Your task to perform on an android device: uninstall "Mercado Libre" Image 0: 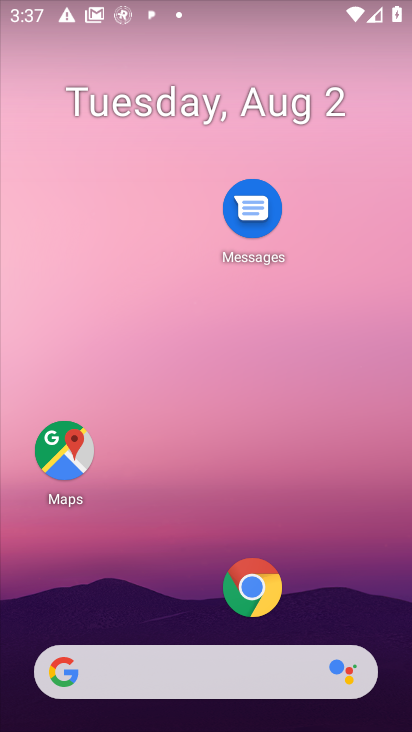
Step 0: drag from (207, 585) to (227, 205)
Your task to perform on an android device: uninstall "Mercado Libre" Image 1: 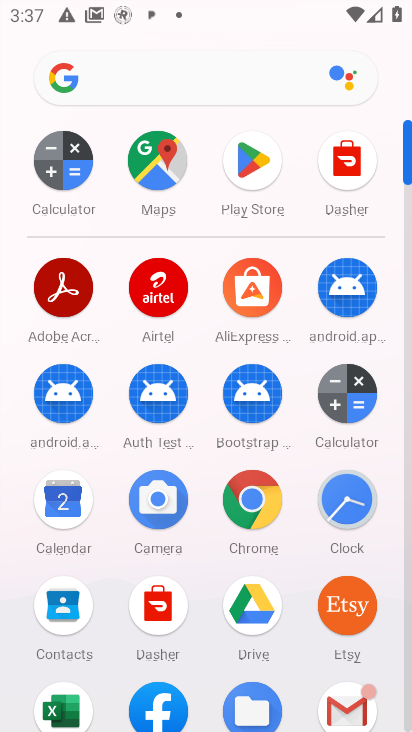
Step 1: click (237, 172)
Your task to perform on an android device: uninstall "Mercado Libre" Image 2: 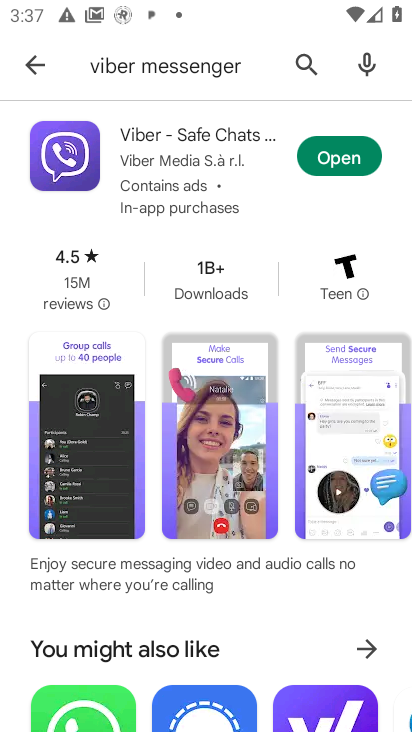
Step 2: click (295, 62)
Your task to perform on an android device: uninstall "Mercado Libre" Image 3: 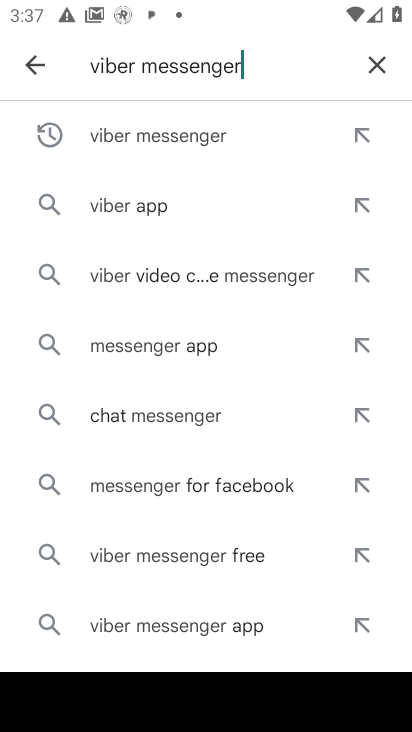
Step 3: click (363, 53)
Your task to perform on an android device: uninstall "Mercado Libre" Image 4: 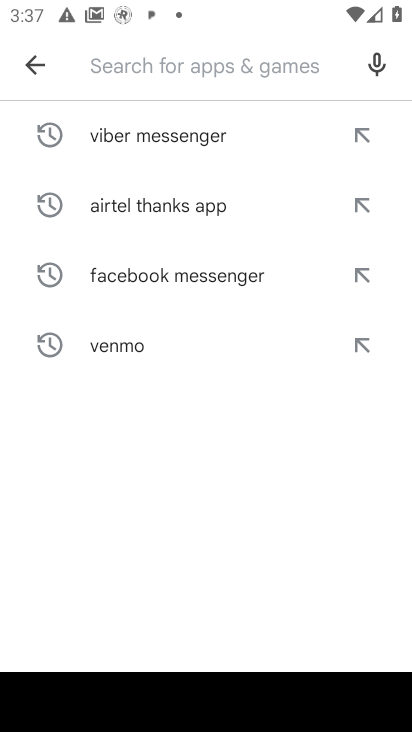
Step 4: type "Mercado Libre"
Your task to perform on an android device: uninstall "Mercado Libre" Image 5: 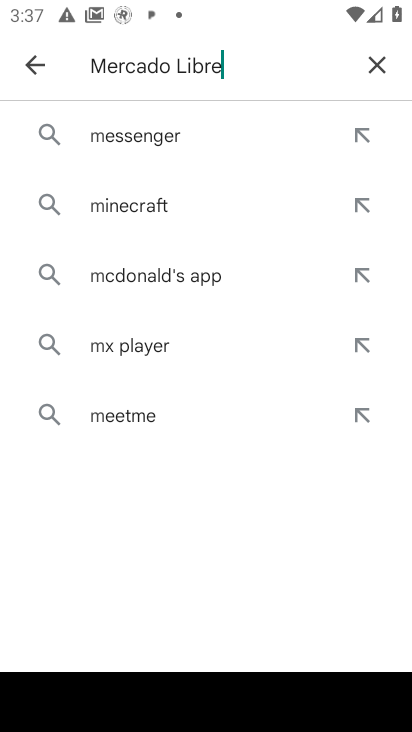
Step 5: type ""
Your task to perform on an android device: uninstall "Mercado Libre" Image 6: 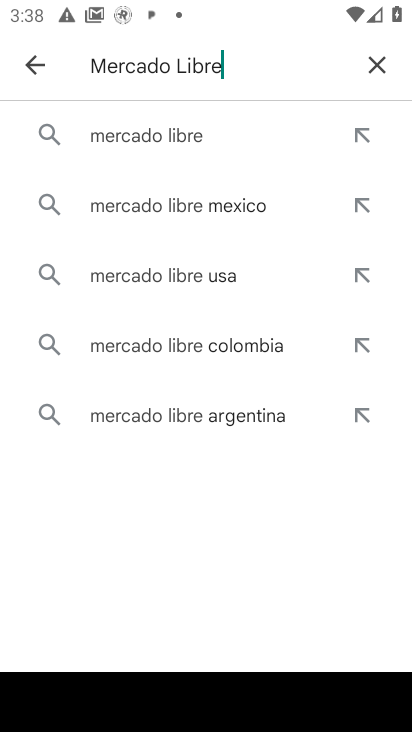
Step 6: click (238, 131)
Your task to perform on an android device: uninstall "Mercado Libre" Image 7: 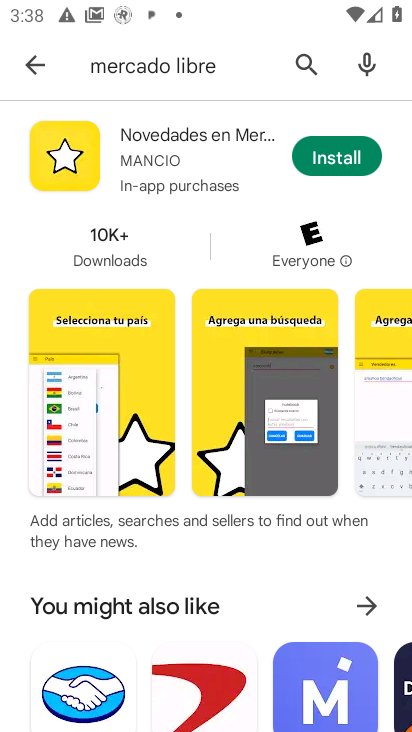
Step 7: task complete